Your task to perform on an android device: Go to accessibility settings Image 0: 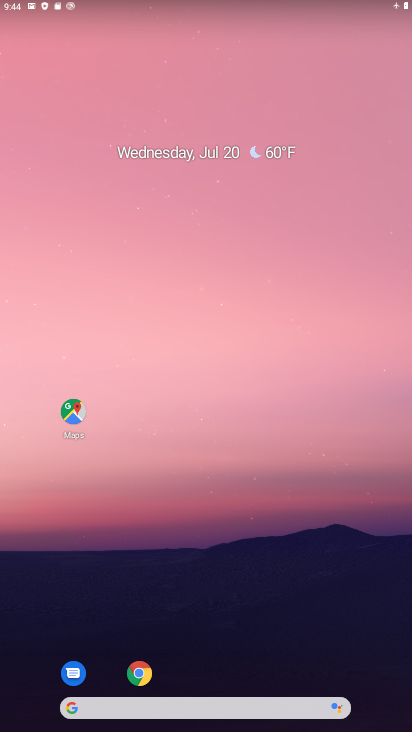
Step 0: drag from (255, 675) to (228, 151)
Your task to perform on an android device: Go to accessibility settings Image 1: 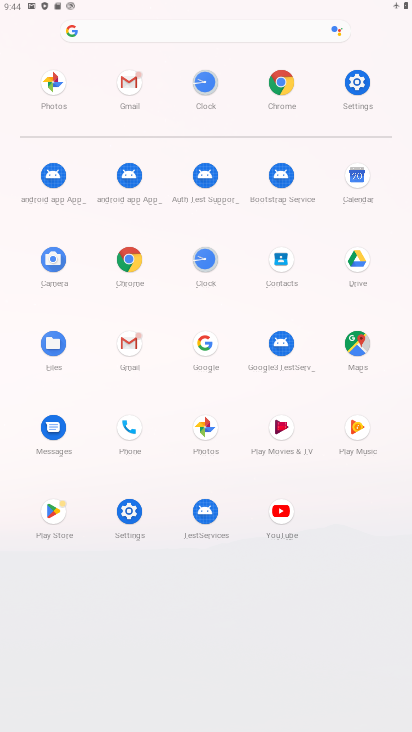
Step 1: click (132, 524)
Your task to perform on an android device: Go to accessibility settings Image 2: 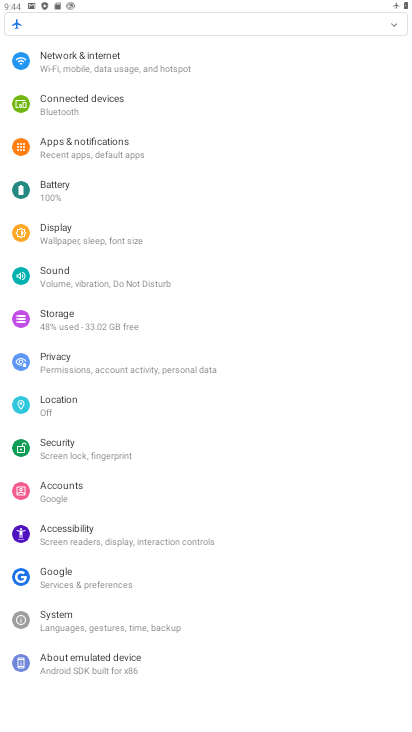
Step 2: click (90, 535)
Your task to perform on an android device: Go to accessibility settings Image 3: 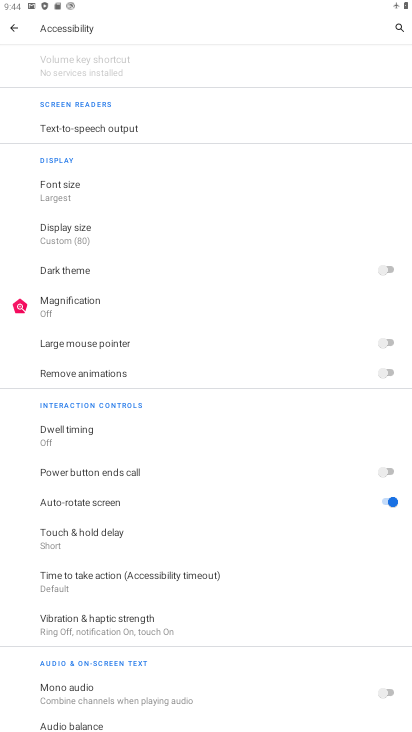
Step 3: task complete